Your task to perform on an android device: Go to network settings Image 0: 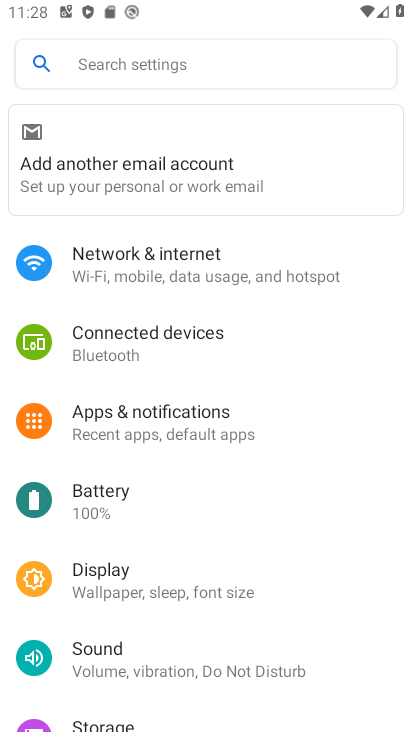
Step 0: drag from (212, 517) to (177, 264)
Your task to perform on an android device: Go to network settings Image 1: 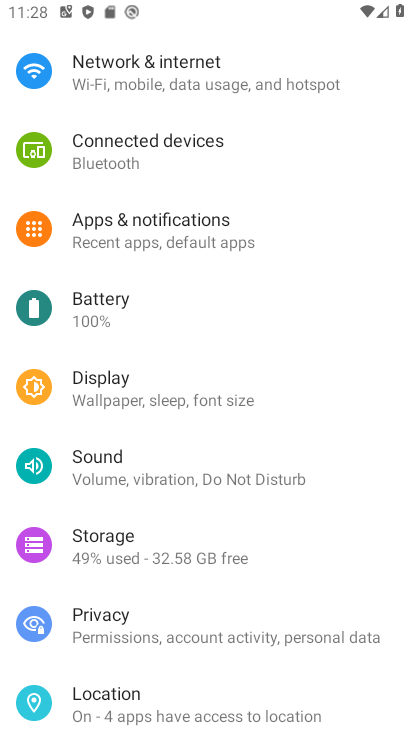
Step 1: click (146, 61)
Your task to perform on an android device: Go to network settings Image 2: 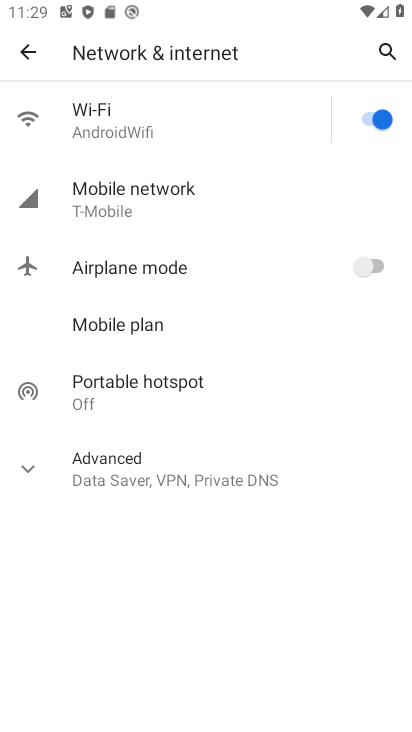
Step 2: task complete